Your task to perform on an android device: Go to sound settings Image 0: 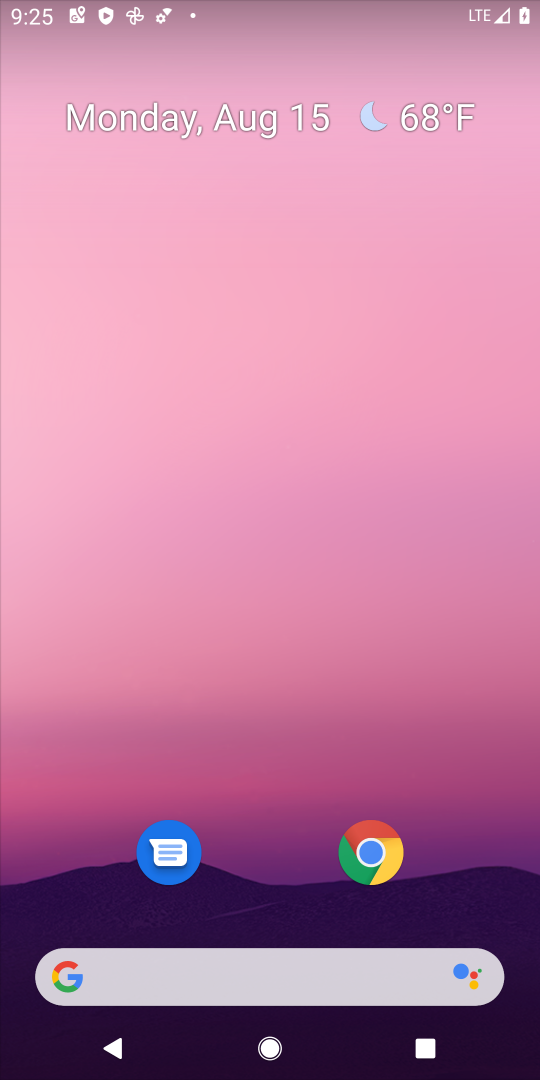
Step 0: drag from (280, 980) to (267, 178)
Your task to perform on an android device: Go to sound settings Image 1: 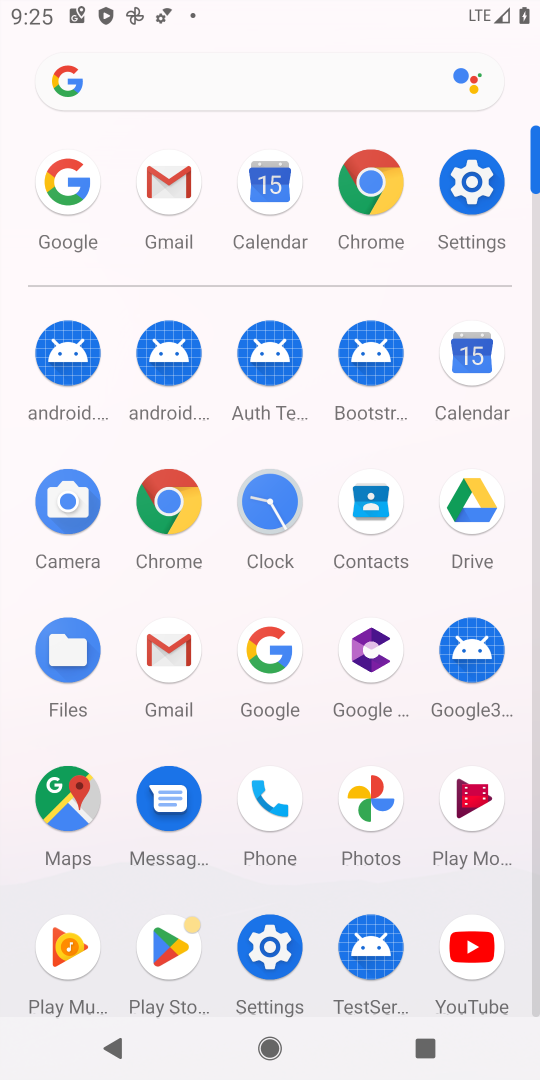
Step 1: click (468, 186)
Your task to perform on an android device: Go to sound settings Image 2: 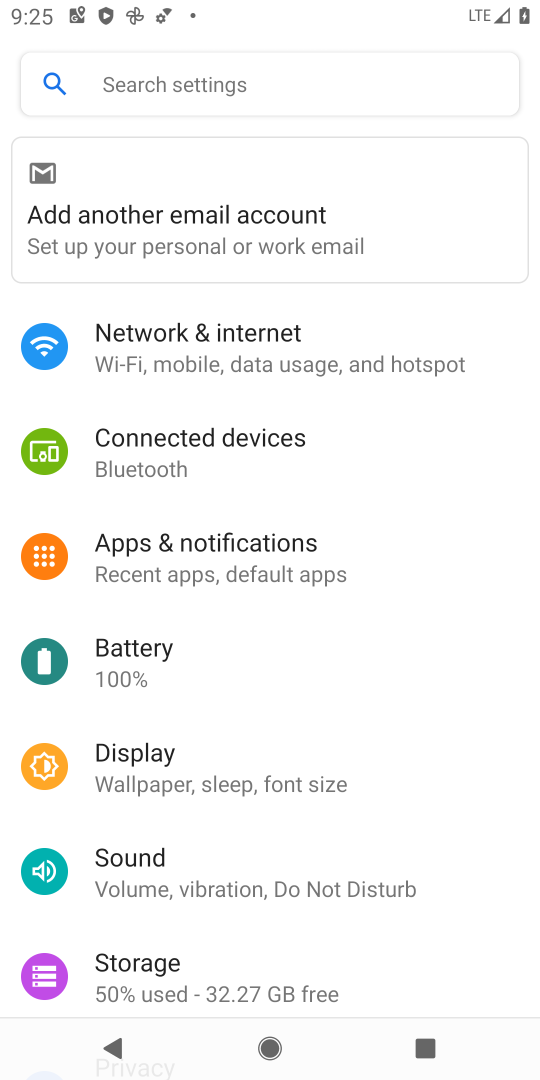
Step 2: drag from (181, 693) to (277, 517)
Your task to perform on an android device: Go to sound settings Image 3: 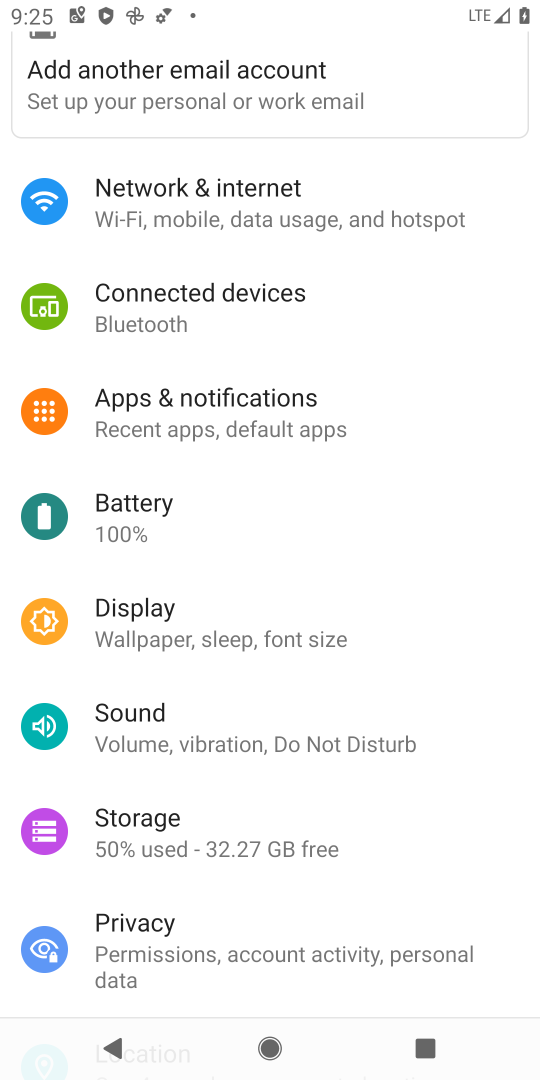
Step 3: click (306, 731)
Your task to perform on an android device: Go to sound settings Image 4: 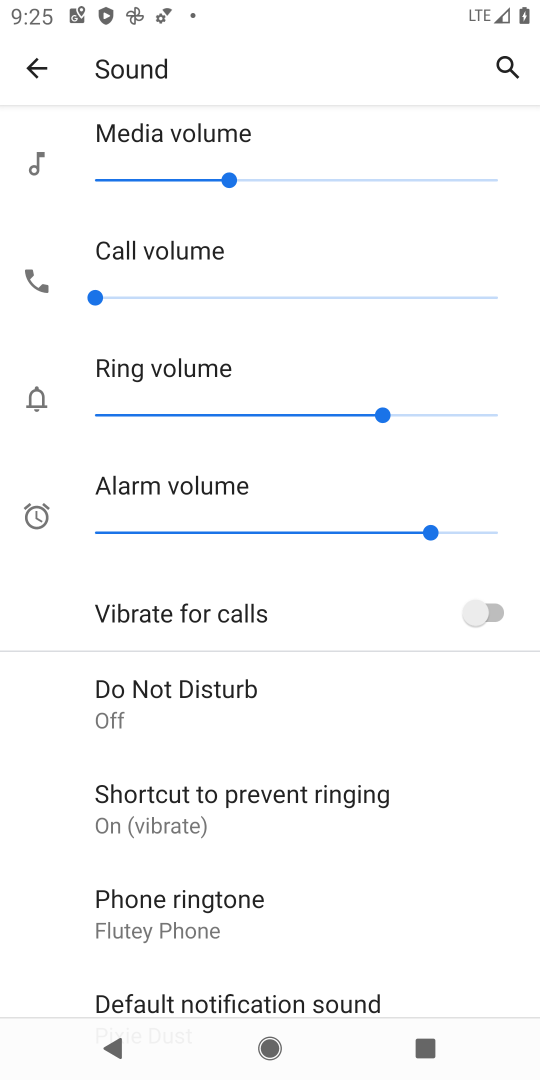
Step 4: task complete